Your task to perform on an android device: turn vacation reply on in the gmail app Image 0: 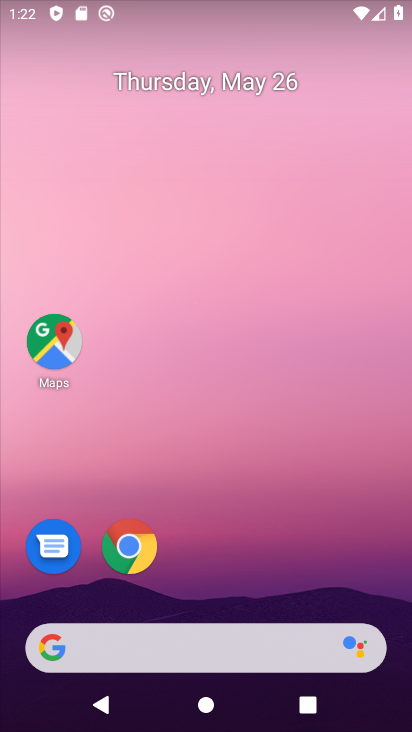
Step 0: drag from (244, 560) to (277, 100)
Your task to perform on an android device: turn vacation reply on in the gmail app Image 1: 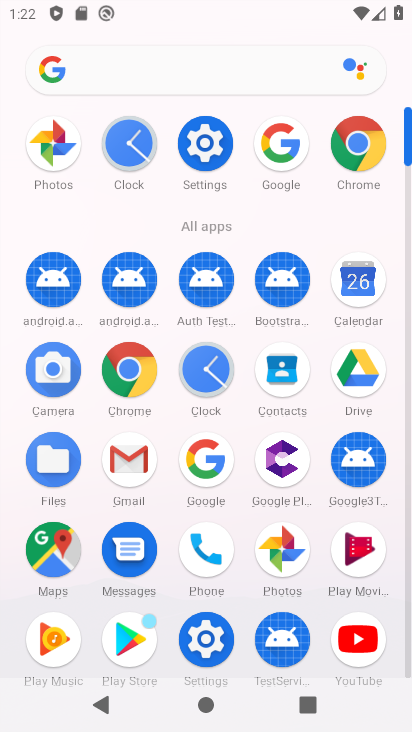
Step 1: click (130, 454)
Your task to perform on an android device: turn vacation reply on in the gmail app Image 2: 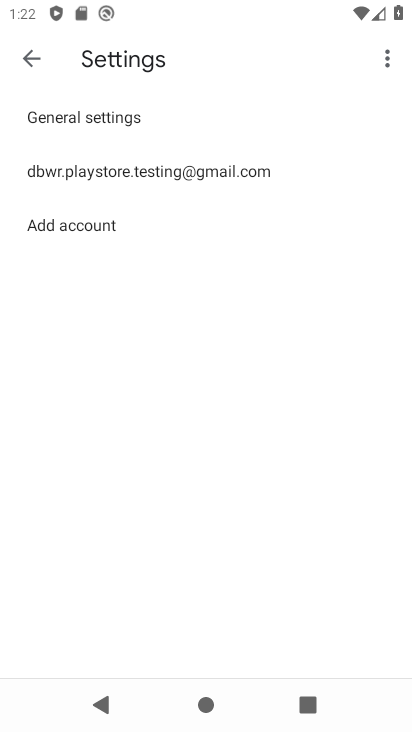
Step 2: click (196, 180)
Your task to perform on an android device: turn vacation reply on in the gmail app Image 3: 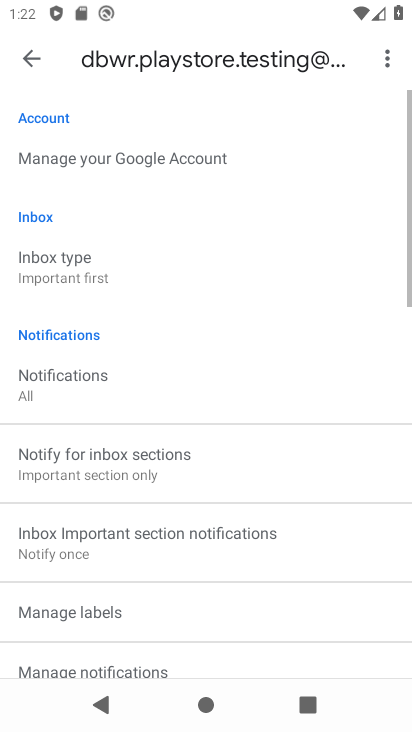
Step 3: drag from (193, 591) to (230, 421)
Your task to perform on an android device: turn vacation reply on in the gmail app Image 4: 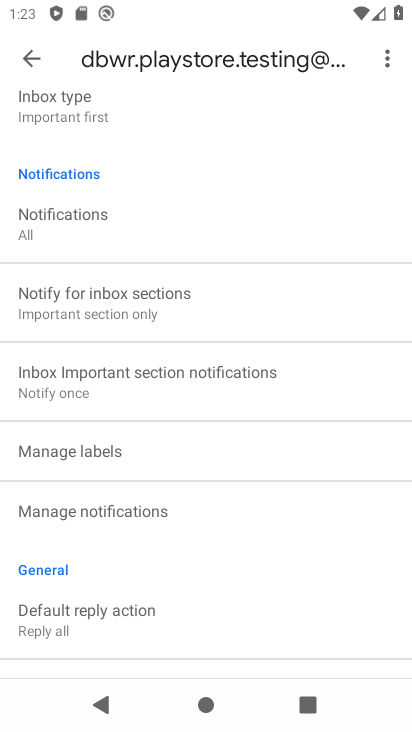
Step 4: drag from (177, 560) to (160, 238)
Your task to perform on an android device: turn vacation reply on in the gmail app Image 5: 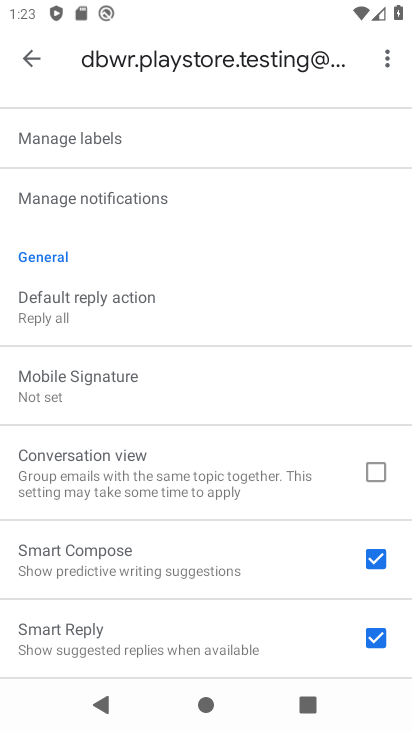
Step 5: drag from (160, 562) to (168, 272)
Your task to perform on an android device: turn vacation reply on in the gmail app Image 6: 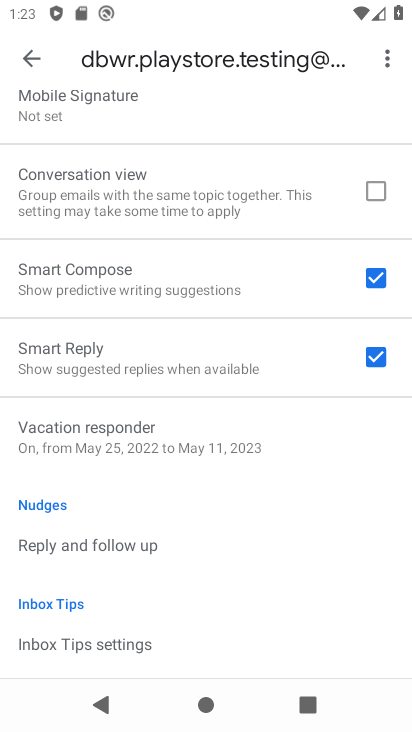
Step 6: click (78, 450)
Your task to perform on an android device: turn vacation reply on in the gmail app Image 7: 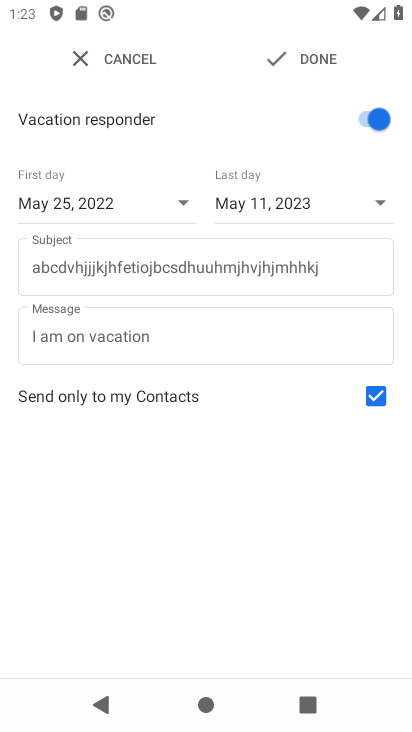
Step 7: task complete